Your task to perform on an android device: What's on my calendar today? Image 0: 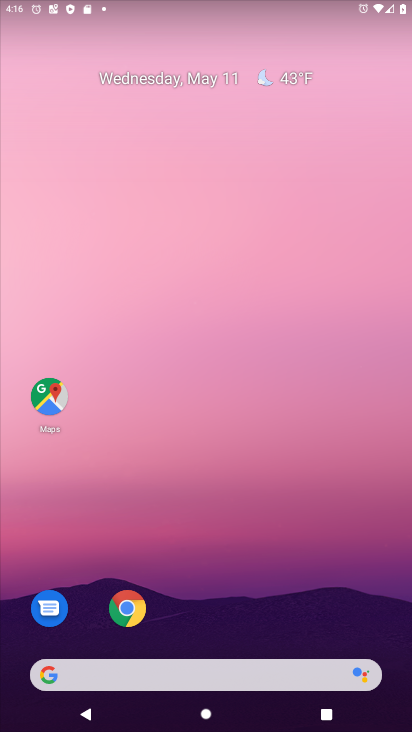
Step 0: drag from (217, 726) to (220, 164)
Your task to perform on an android device: What's on my calendar today? Image 1: 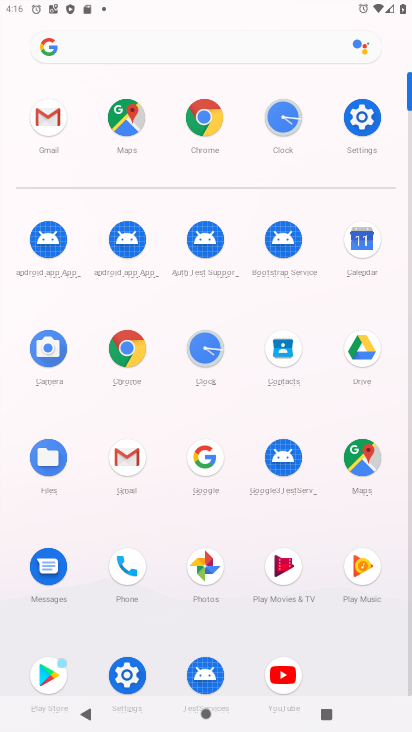
Step 1: click (365, 238)
Your task to perform on an android device: What's on my calendar today? Image 2: 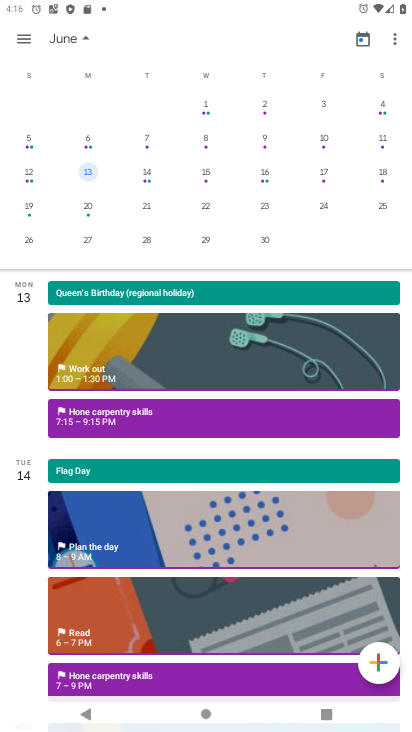
Step 2: click (86, 170)
Your task to perform on an android device: What's on my calendar today? Image 3: 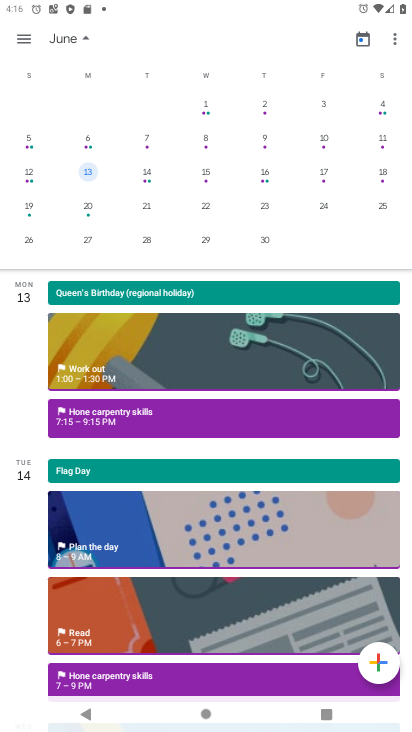
Step 3: drag from (65, 156) to (401, 147)
Your task to perform on an android device: What's on my calendar today? Image 4: 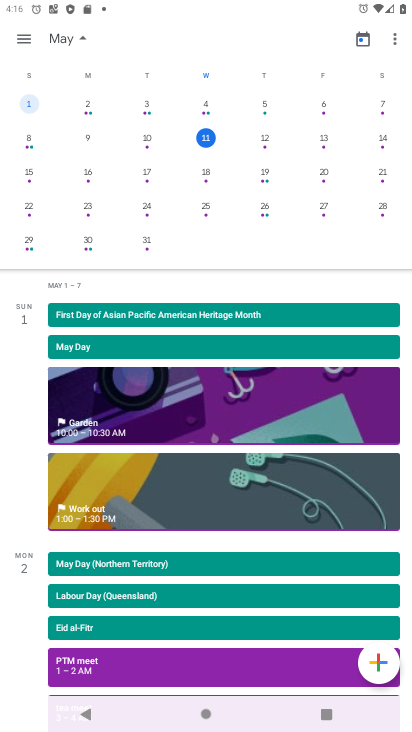
Step 4: click (204, 136)
Your task to perform on an android device: What's on my calendar today? Image 5: 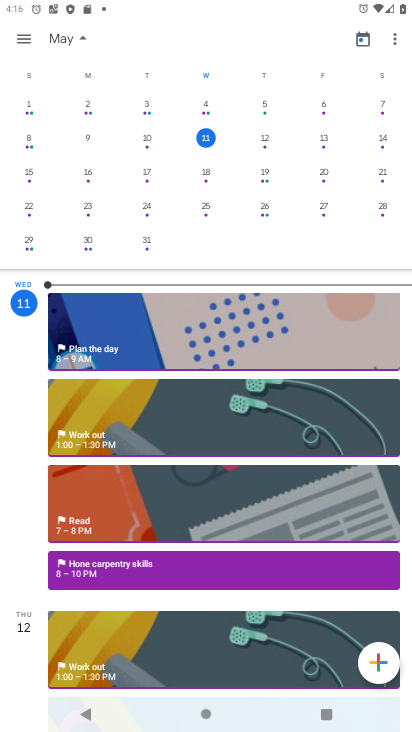
Step 5: task complete